Your task to perform on an android device: Go to accessibility settings Image 0: 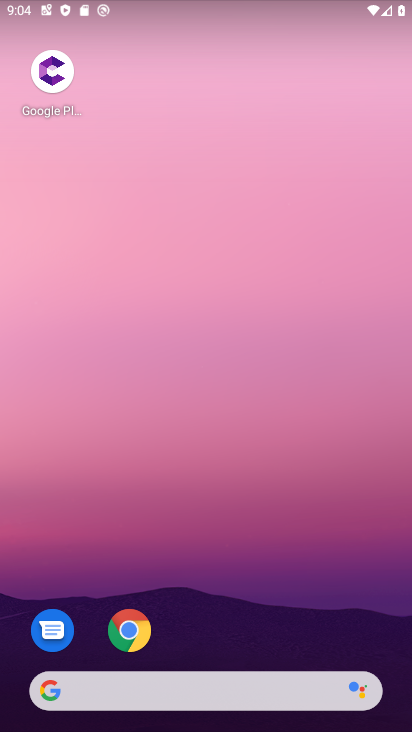
Step 0: drag from (243, 625) to (280, 5)
Your task to perform on an android device: Go to accessibility settings Image 1: 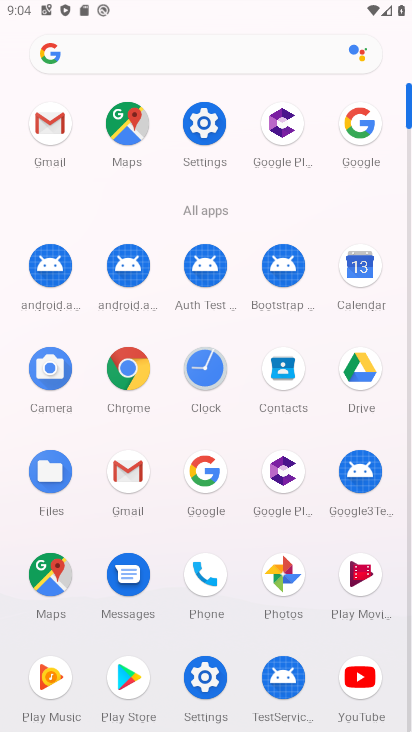
Step 1: click (198, 139)
Your task to perform on an android device: Go to accessibility settings Image 2: 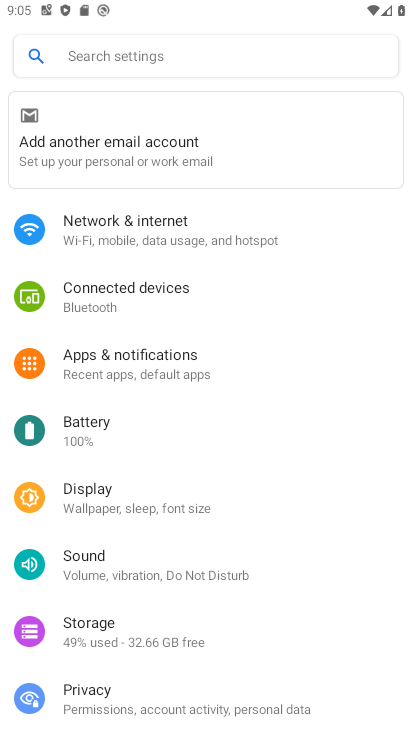
Step 2: drag from (149, 521) to (151, 196)
Your task to perform on an android device: Go to accessibility settings Image 3: 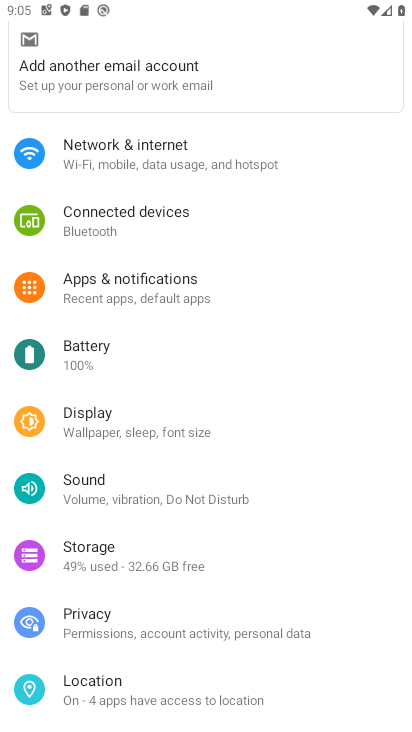
Step 3: drag from (161, 526) to (184, 20)
Your task to perform on an android device: Go to accessibility settings Image 4: 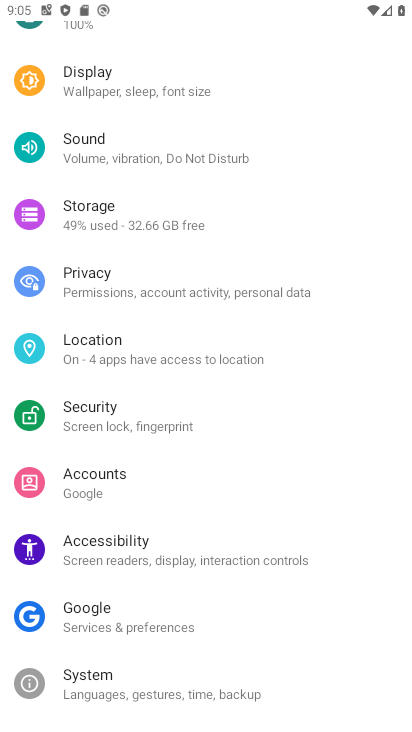
Step 4: click (123, 538)
Your task to perform on an android device: Go to accessibility settings Image 5: 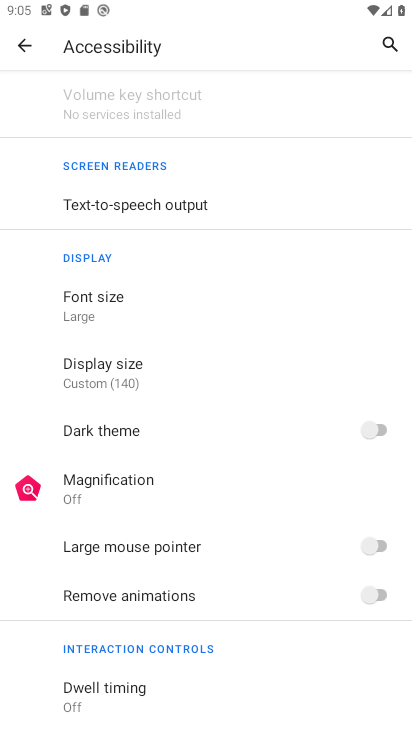
Step 5: click (123, 538)
Your task to perform on an android device: Go to accessibility settings Image 6: 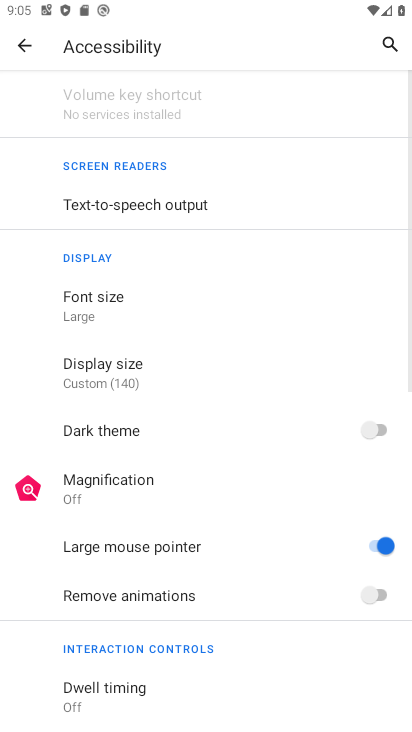
Step 6: task complete